Your task to perform on an android device: Open Amazon Image 0: 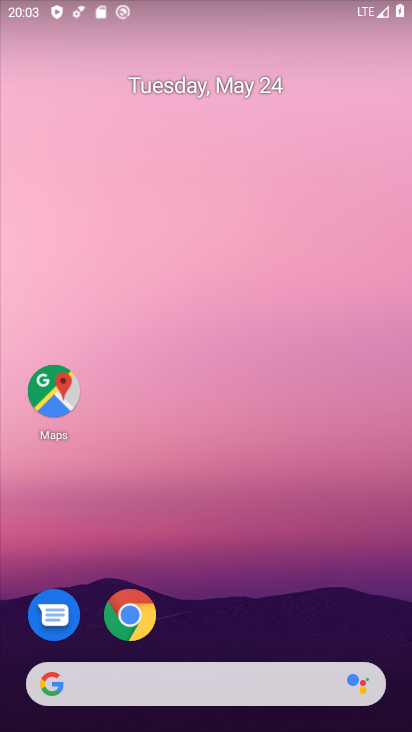
Step 0: click (110, 610)
Your task to perform on an android device: Open Amazon Image 1: 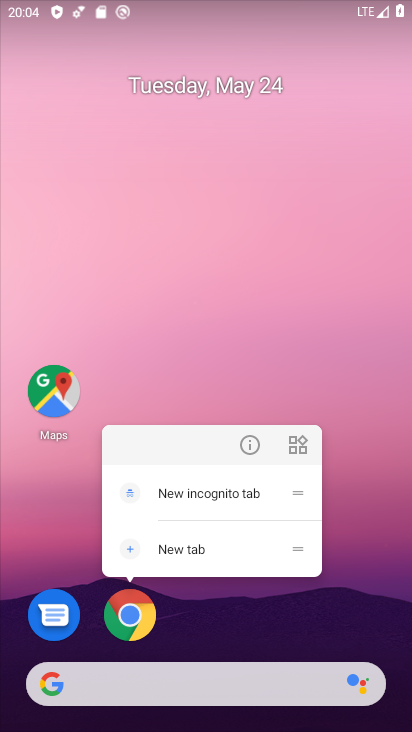
Step 1: click (127, 606)
Your task to perform on an android device: Open Amazon Image 2: 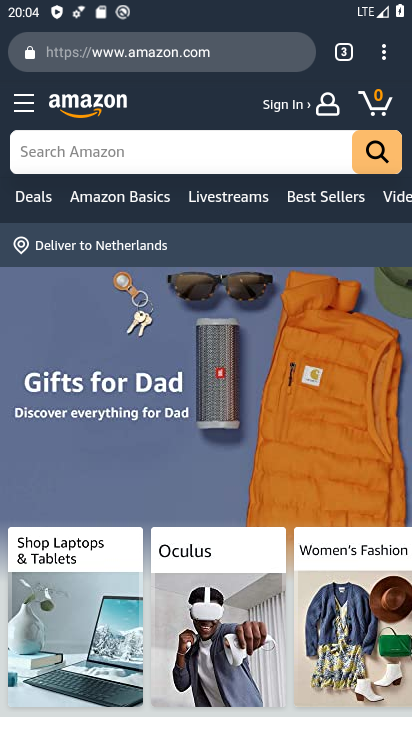
Step 2: task complete